Your task to perform on an android device: Open internet settings Image 0: 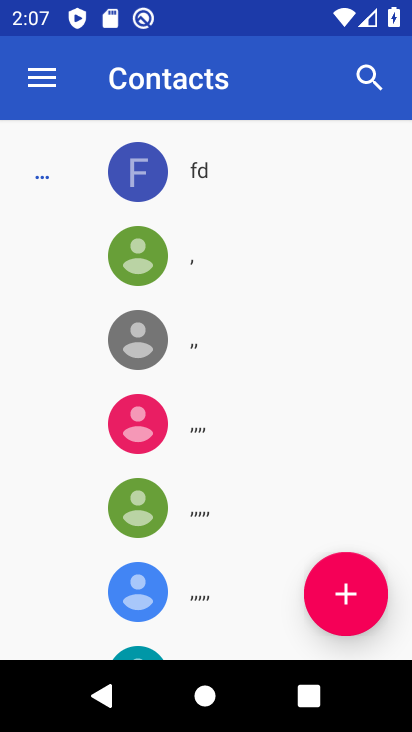
Step 0: click (201, 551)
Your task to perform on an android device: Open internet settings Image 1: 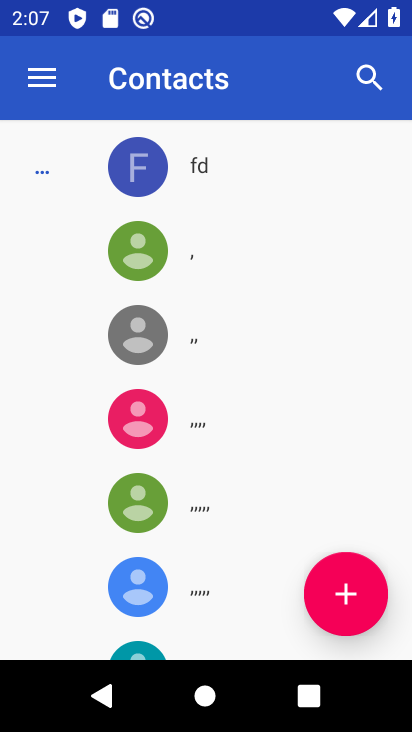
Step 1: press home button
Your task to perform on an android device: Open internet settings Image 2: 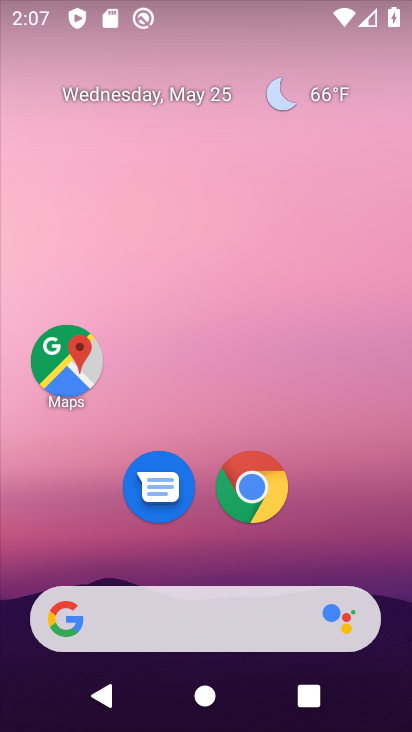
Step 2: drag from (213, 574) to (215, 88)
Your task to perform on an android device: Open internet settings Image 3: 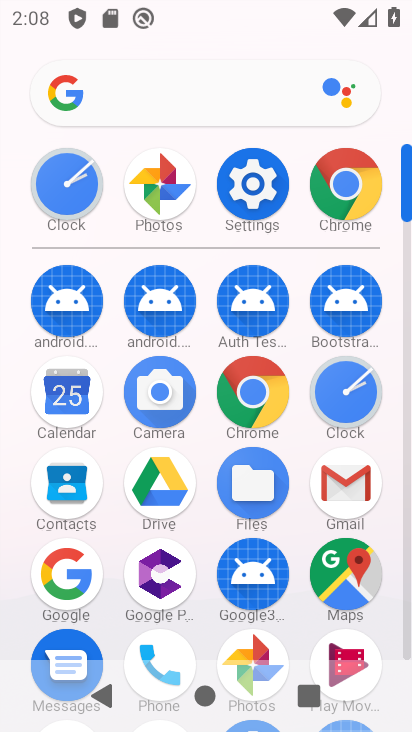
Step 3: click (255, 188)
Your task to perform on an android device: Open internet settings Image 4: 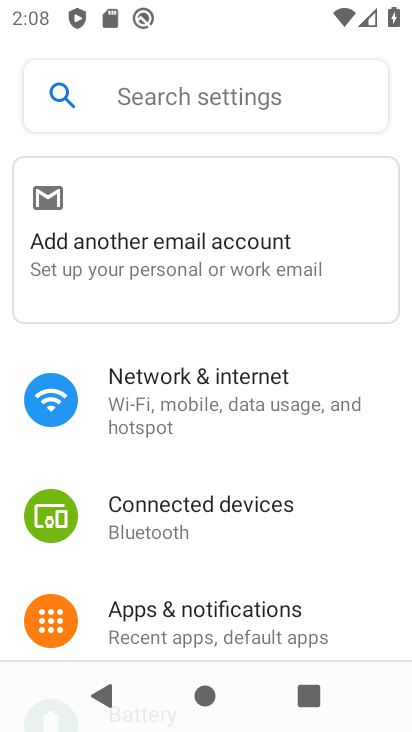
Step 4: click (172, 419)
Your task to perform on an android device: Open internet settings Image 5: 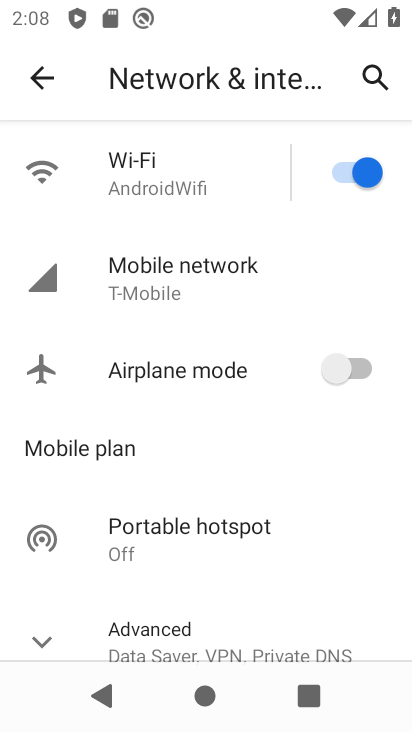
Step 5: task complete